Your task to perform on an android device: turn off priority inbox in the gmail app Image 0: 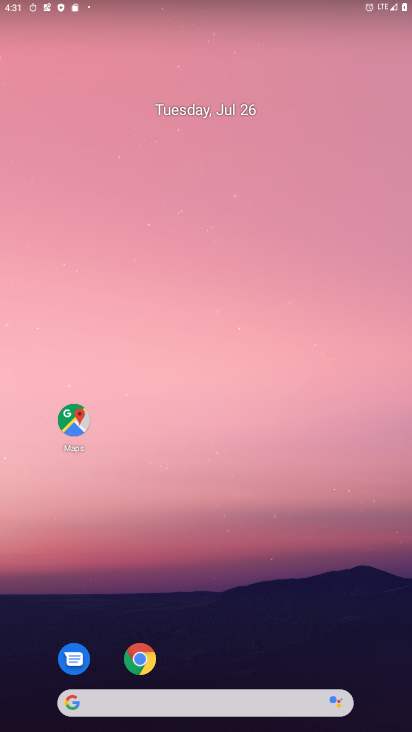
Step 0: drag from (241, 638) to (271, 0)
Your task to perform on an android device: turn off priority inbox in the gmail app Image 1: 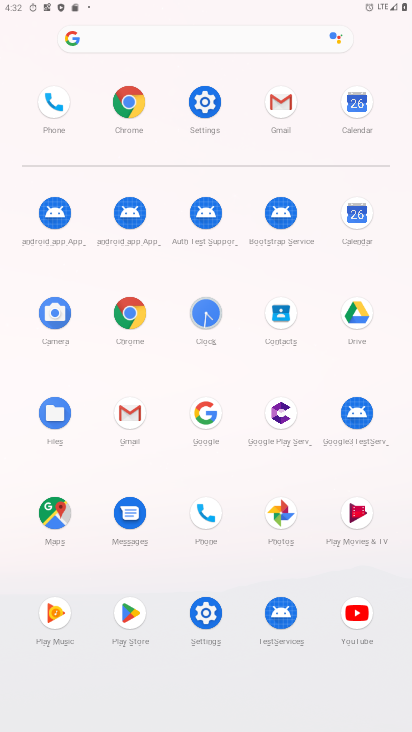
Step 1: click (277, 136)
Your task to perform on an android device: turn off priority inbox in the gmail app Image 2: 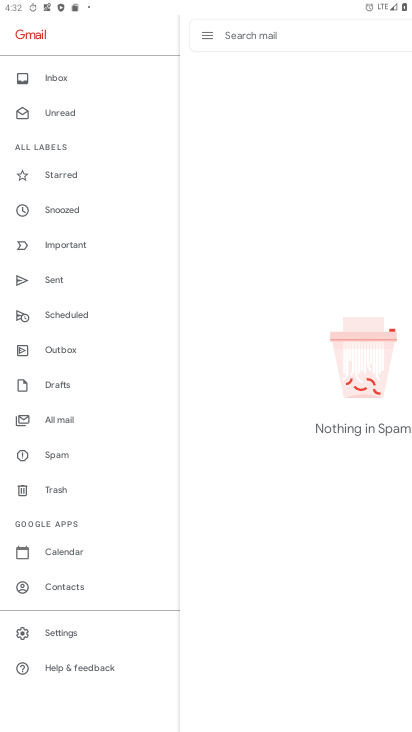
Step 2: click (54, 630)
Your task to perform on an android device: turn off priority inbox in the gmail app Image 3: 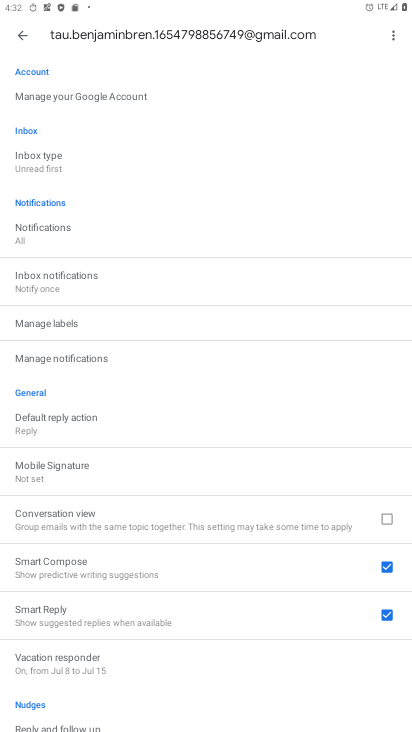
Step 3: click (37, 159)
Your task to perform on an android device: turn off priority inbox in the gmail app Image 4: 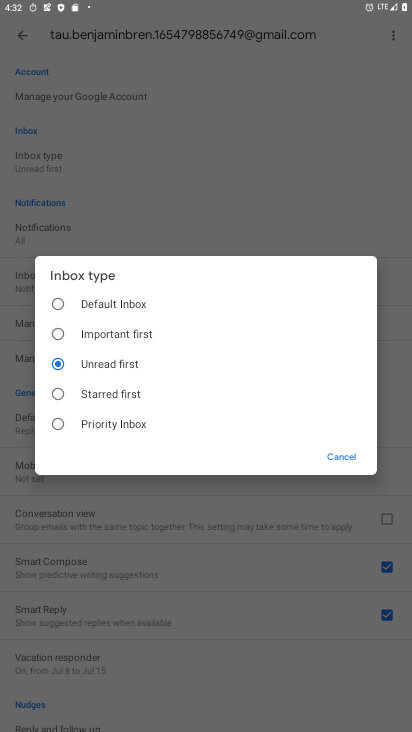
Step 4: click (60, 302)
Your task to perform on an android device: turn off priority inbox in the gmail app Image 5: 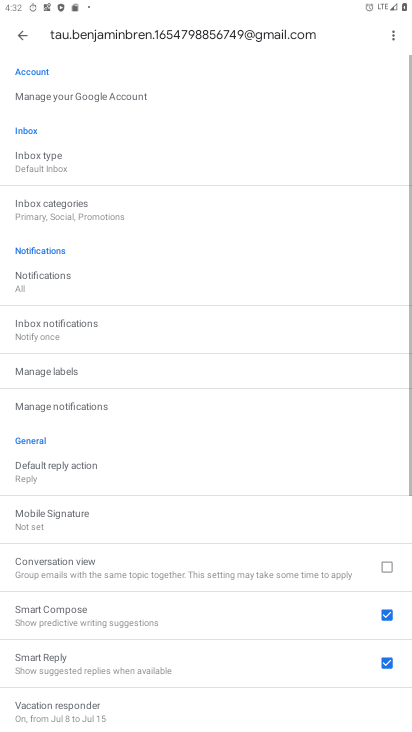
Step 5: task complete